Your task to perform on an android device: delete the emails in spam in the gmail app Image 0: 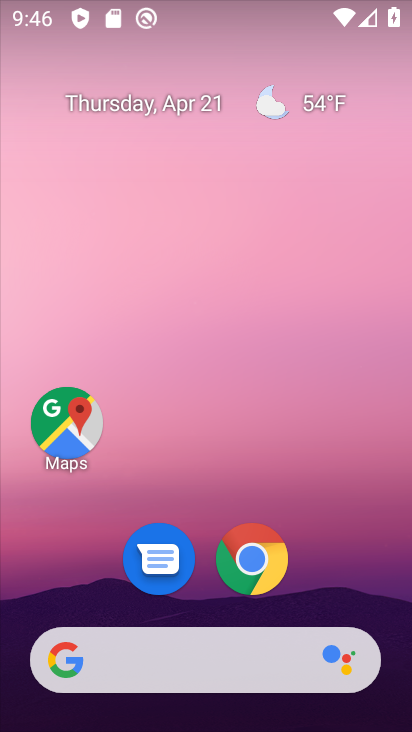
Step 0: drag from (181, 438) to (235, 117)
Your task to perform on an android device: delete the emails in spam in the gmail app Image 1: 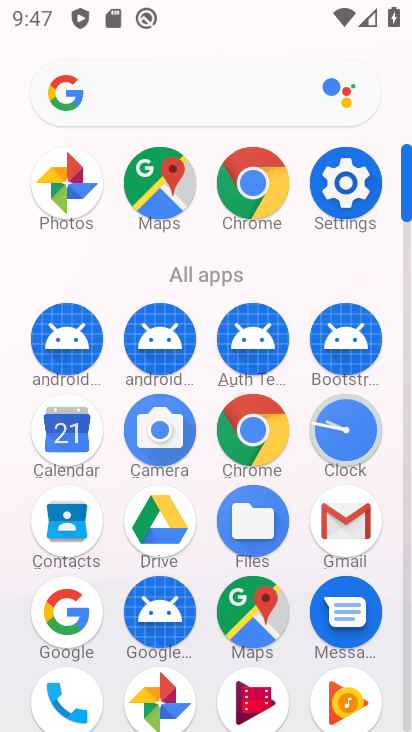
Step 1: click (348, 526)
Your task to perform on an android device: delete the emails in spam in the gmail app Image 2: 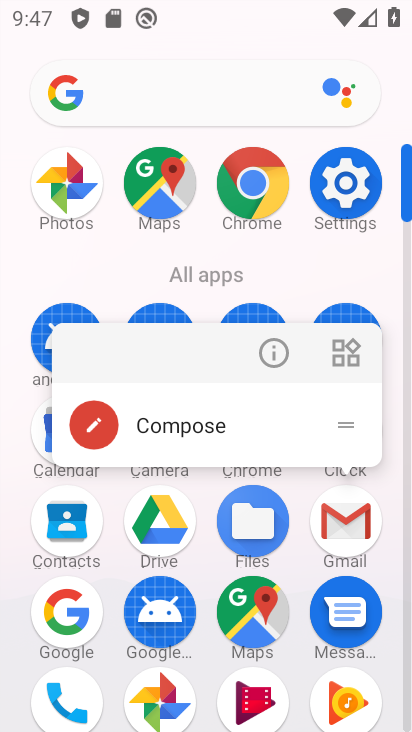
Step 2: click (355, 522)
Your task to perform on an android device: delete the emails in spam in the gmail app Image 3: 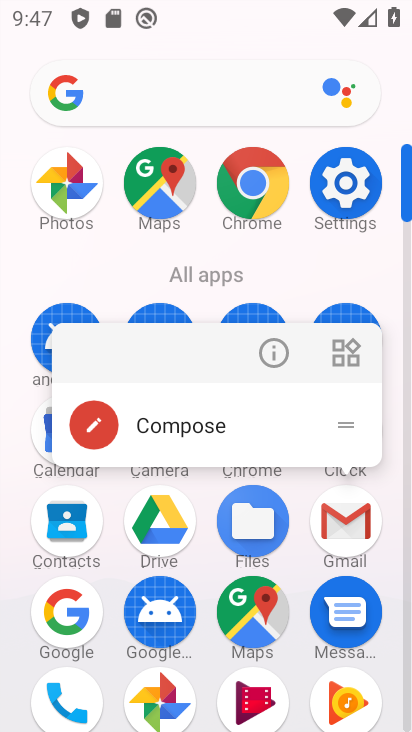
Step 3: click (352, 524)
Your task to perform on an android device: delete the emails in spam in the gmail app Image 4: 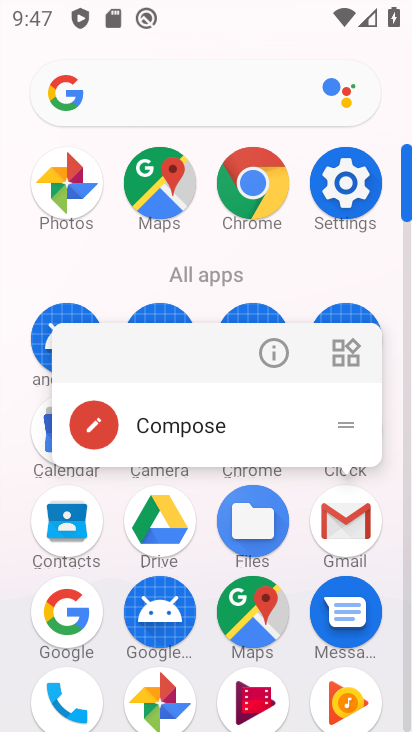
Step 4: click (326, 527)
Your task to perform on an android device: delete the emails in spam in the gmail app Image 5: 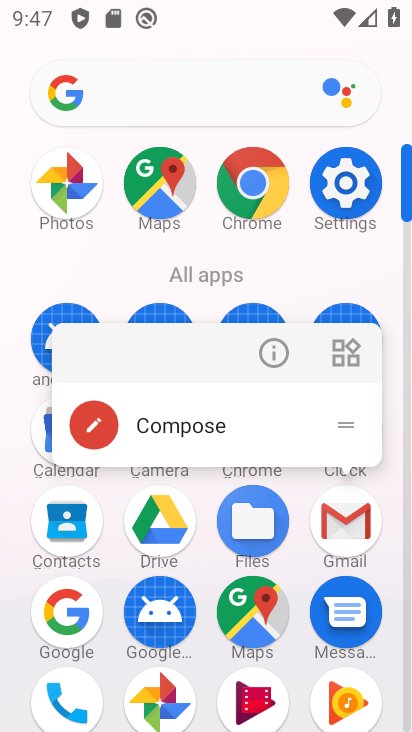
Step 5: click (339, 512)
Your task to perform on an android device: delete the emails in spam in the gmail app Image 6: 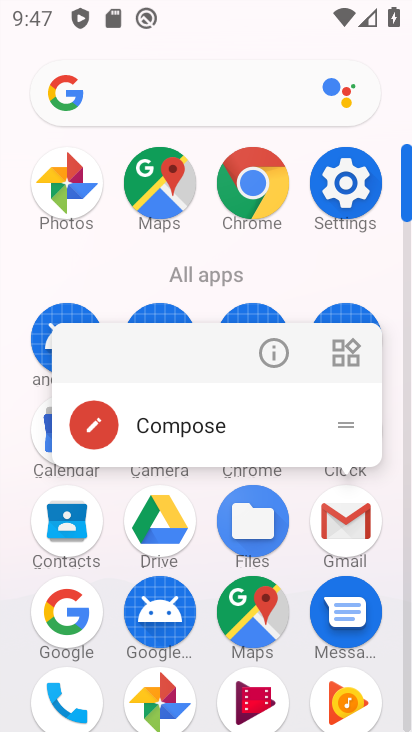
Step 6: click (357, 530)
Your task to perform on an android device: delete the emails in spam in the gmail app Image 7: 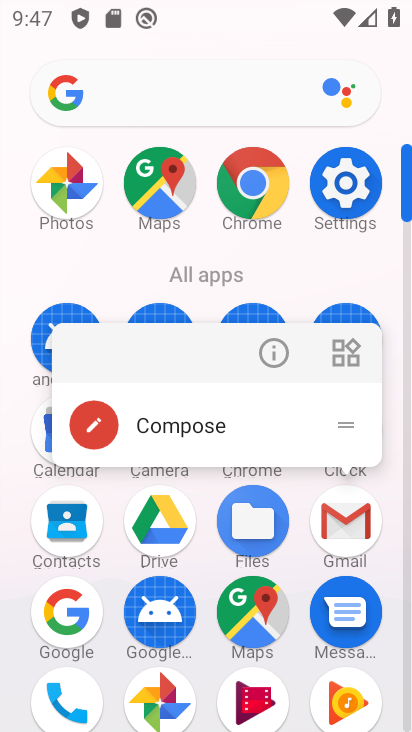
Step 7: click (360, 531)
Your task to perform on an android device: delete the emails in spam in the gmail app Image 8: 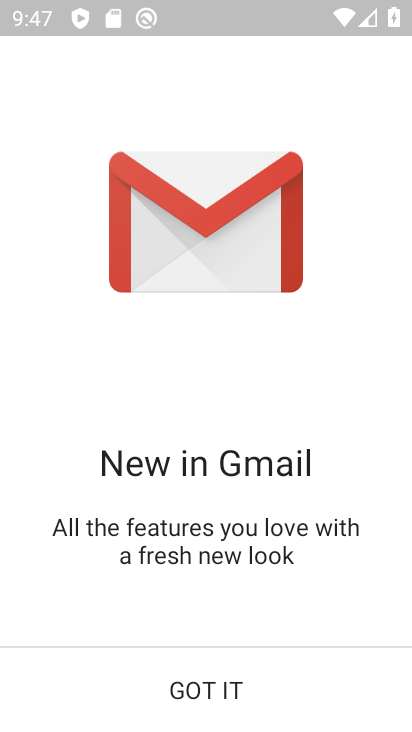
Step 8: click (203, 678)
Your task to perform on an android device: delete the emails in spam in the gmail app Image 9: 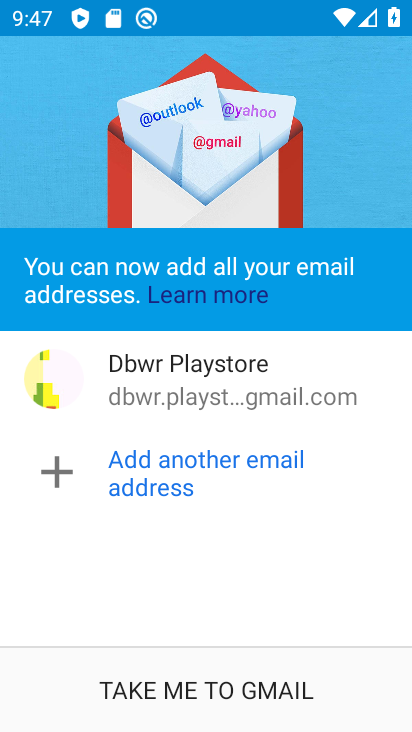
Step 9: click (202, 677)
Your task to perform on an android device: delete the emails in spam in the gmail app Image 10: 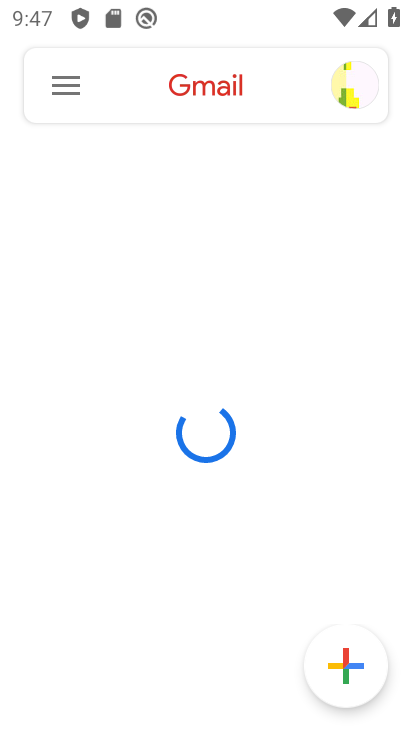
Step 10: click (59, 80)
Your task to perform on an android device: delete the emails in spam in the gmail app Image 11: 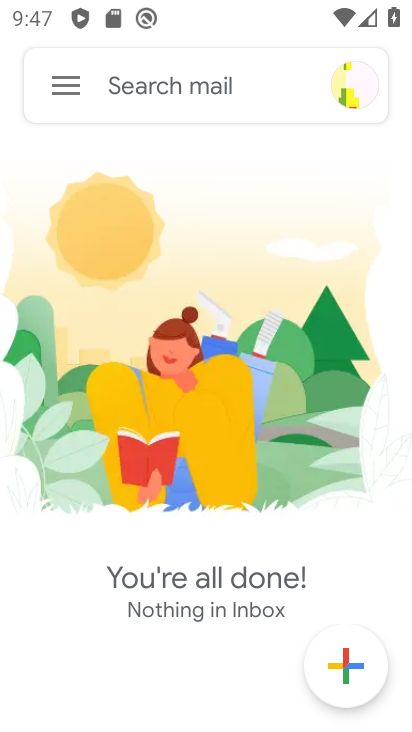
Step 11: click (61, 87)
Your task to perform on an android device: delete the emails in spam in the gmail app Image 12: 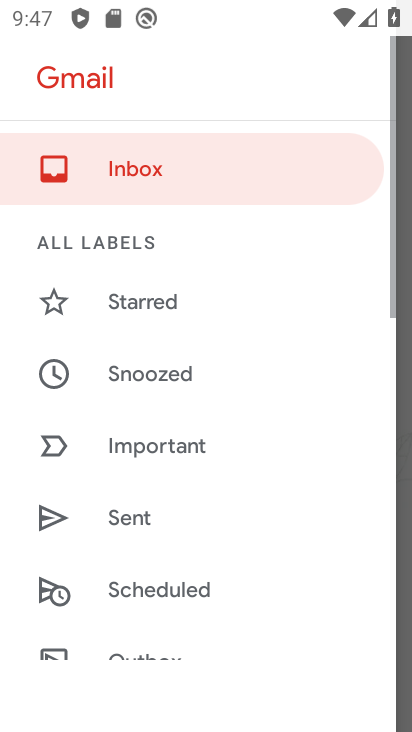
Step 12: drag from (152, 583) to (257, 63)
Your task to perform on an android device: delete the emails in spam in the gmail app Image 13: 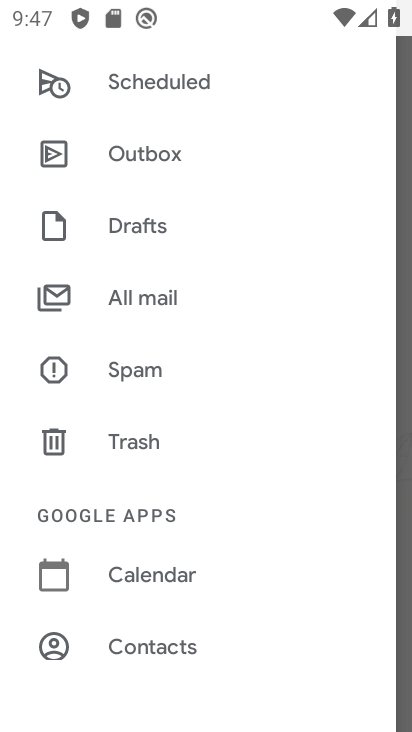
Step 13: click (140, 372)
Your task to perform on an android device: delete the emails in spam in the gmail app Image 14: 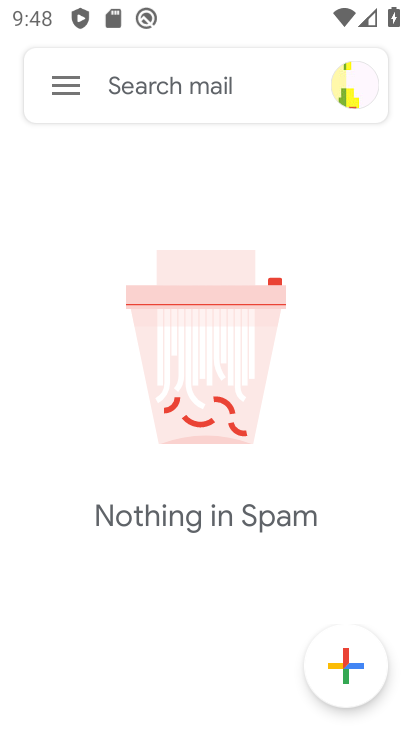
Step 14: task complete